Your task to perform on an android device: clear all cookies in the chrome app Image 0: 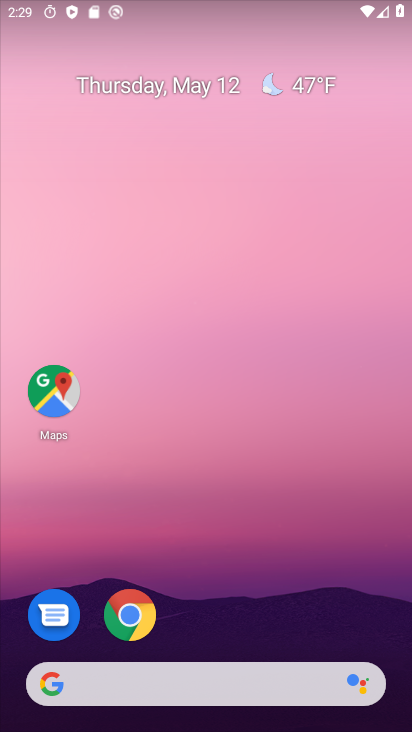
Step 0: click (131, 607)
Your task to perform on an android device: clear all cookies in the chrome app Image 1: 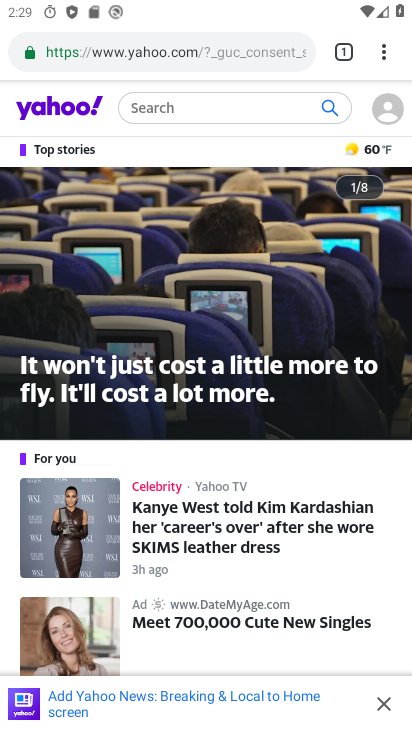
Step 1: click (375, 51)
Your task to perform on an android device: clear all cookies in the chrome app Image 2: 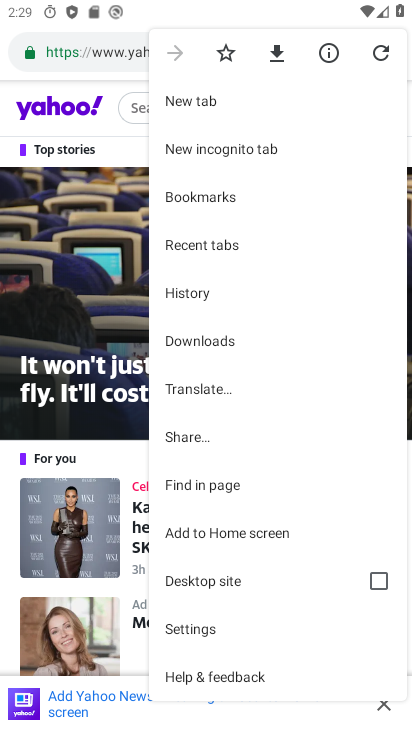
Step 2: click (224, 630)
Your task to perform on an android device: clear all cookies in the chrome app Image 3: 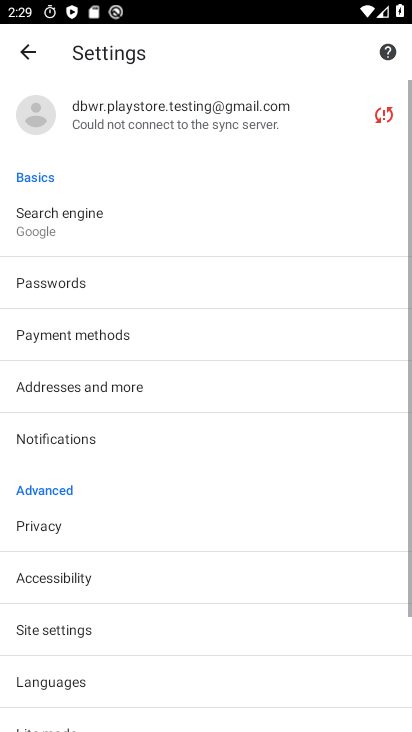
Step 3: drag from (216, 606) to (220, 126)
Your task to perform on an android device: clear all cookies in the chrome app Image 4: 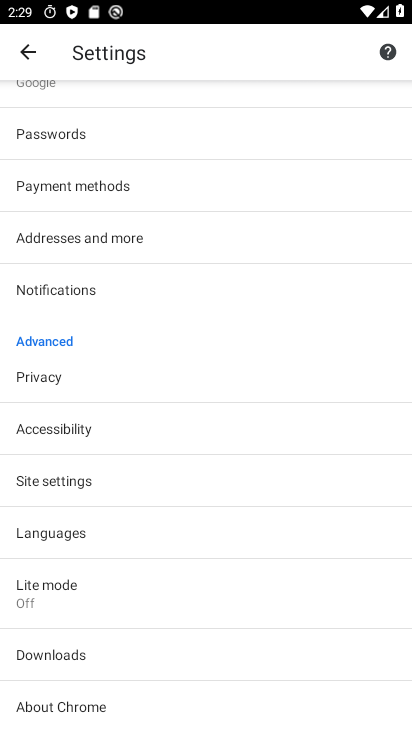
Step 4: click (57, 362)
Your task to perform on an android device: clear all cookies in the chrome app Image 5: 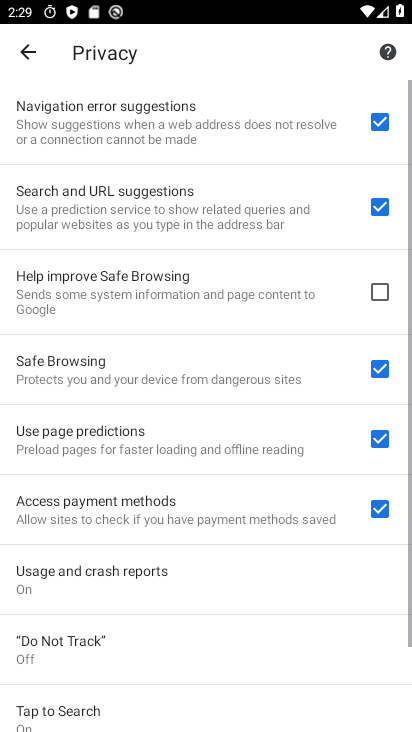
Step 5: drag from (270, 632) to (278, 109)
Your task to perform on an android device: clear all cookies in the chrome app Image 6: 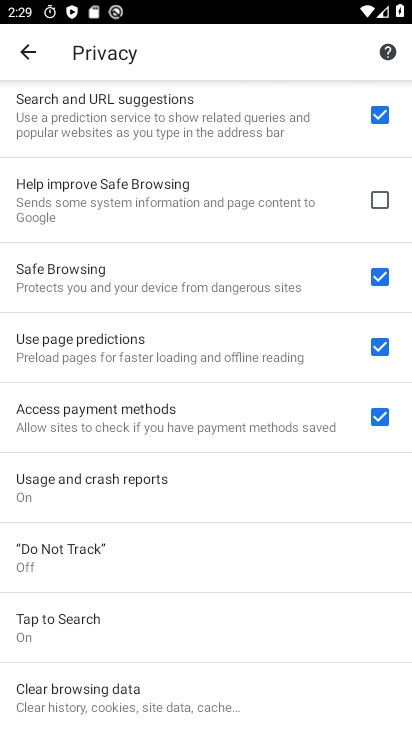
Step 6: click (68, 686)
Your task to perform on an android device: clear all cookies in the chrome app Image 7: 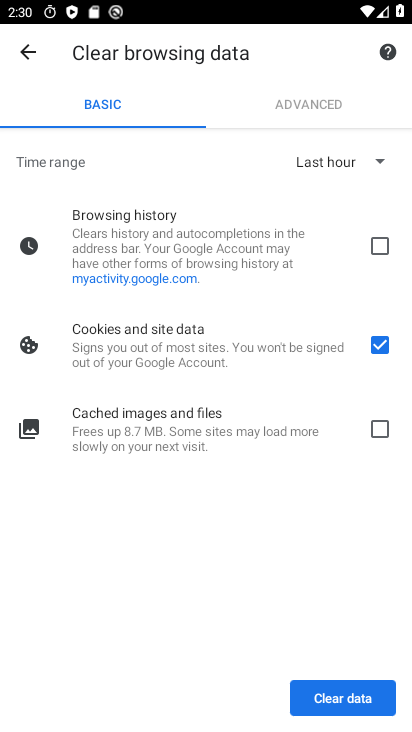
Step 7: click (333, 700)
Your task to perform on an android device: clear all cookies in the chrome app Image 8: 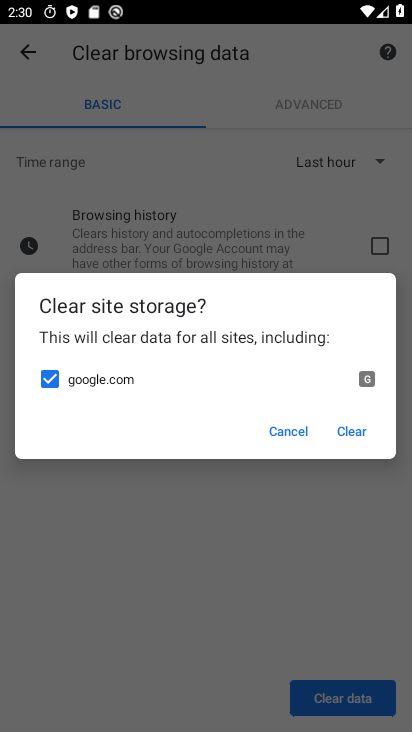
Step 8: click (340, 425)
Your task to perform on an android device: clear all cookies in the chrome app Image 9: 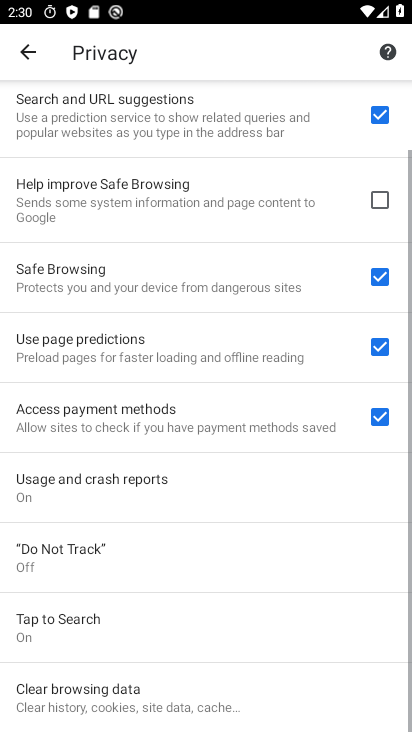
Step 9: task complete